Your task to perform on an android device: Open sound settings Image 0: 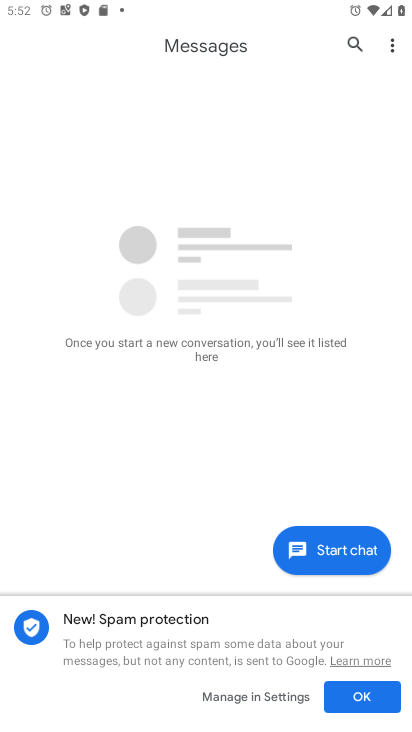
Step 0: press home button
Your task to perform on an android device: Open sound settings Image 1: 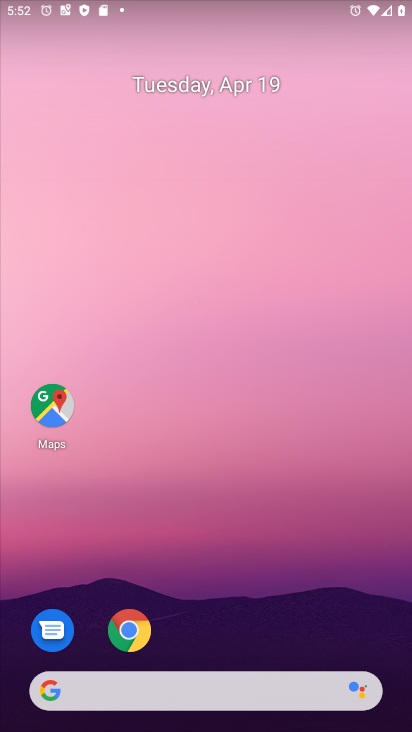
Step 1: drag from (276, 624) to (280, 0)
Your task to perform on an android device: Open sound settings Image 2: 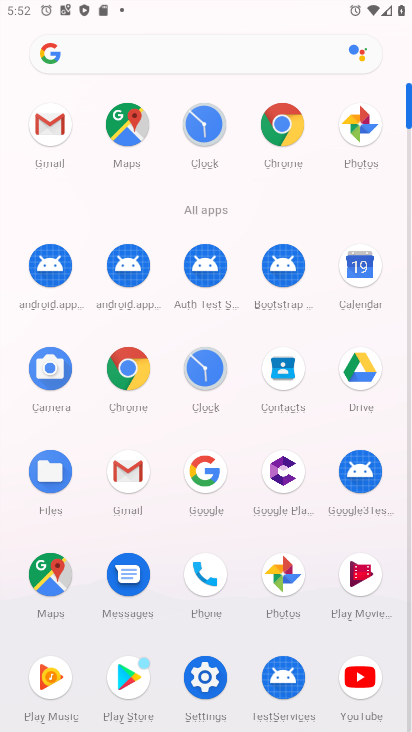
Step 2: click (411, 363)
Your task to perform on an android device: Open sound settings Image 3: 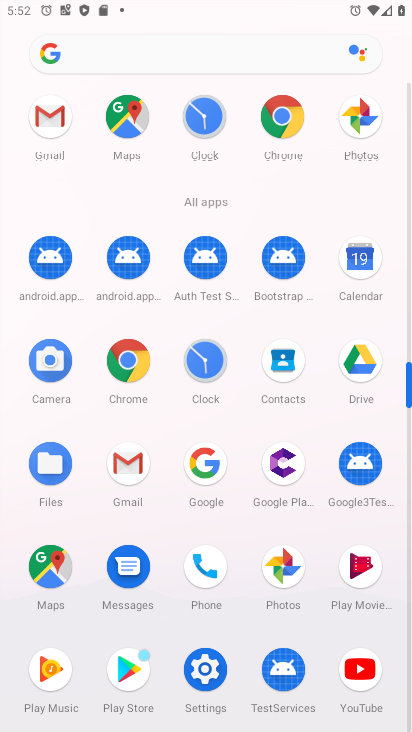
Step 3: drag from (410, 391) to (274, 42)
Your task to perform on an android device: Open sound settings Image 4: 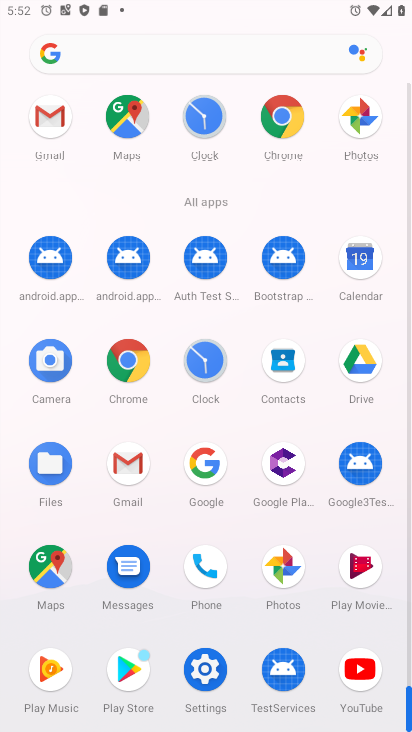
Step 4: drag from (409, 203) to (407, 88)
Your task to perform on an android device: Open sound settings Image 5: 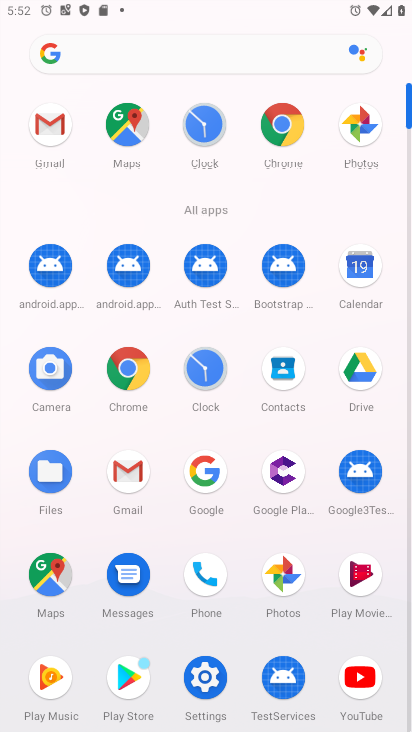
Step 5: click (214, 668)
Your task to perform on an android device: Open sound settings Image 6: 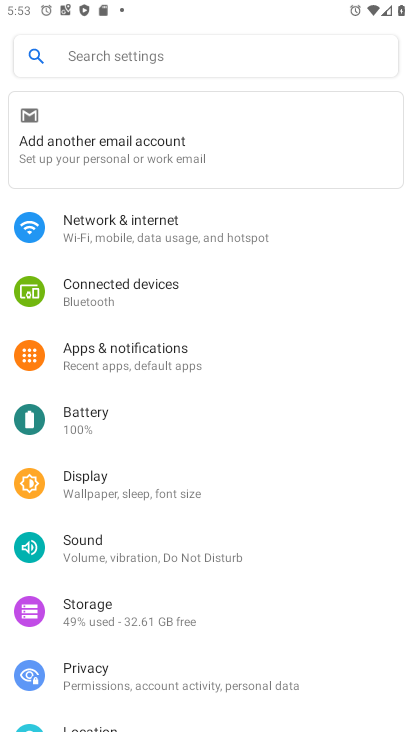
Step 6: click (112, 551)
Your task to perform on an android device: Open sound settings Image 7: 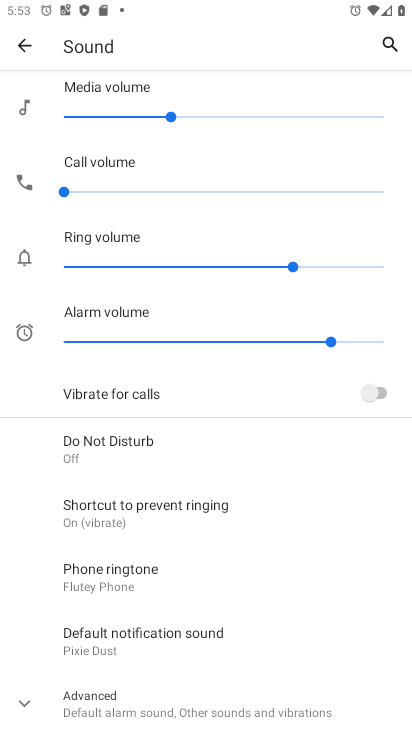
Step 7: task complete